Your task to perform on an android device: Open maps Image 0: 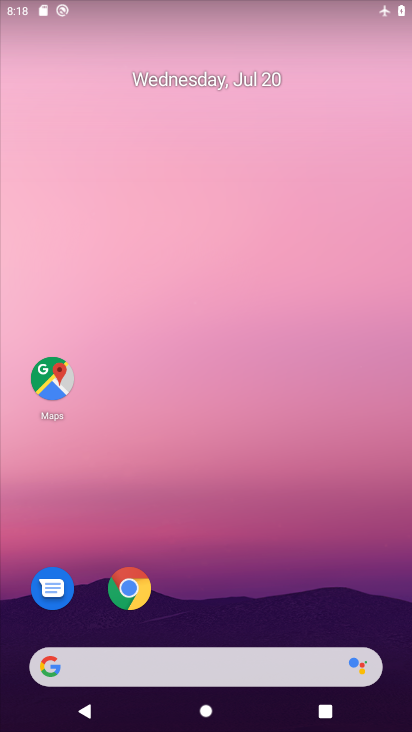
Step 0: click (47, 372)
Your task to perform on an android device: Open maps Image 1: 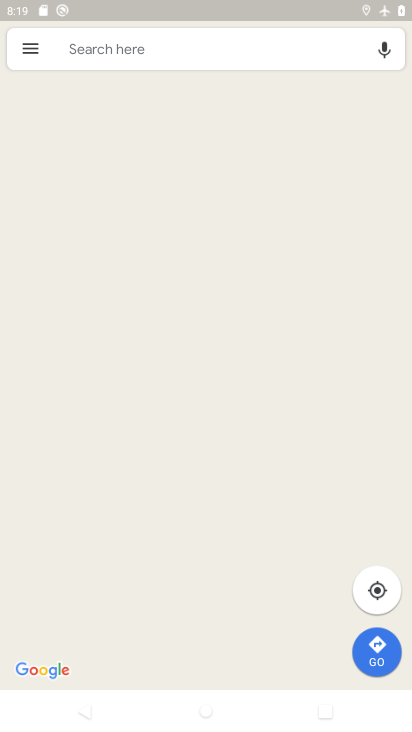
Step 1: task complete